Your task to perform on an android device: open a bookmark in the chrome app Image 0: 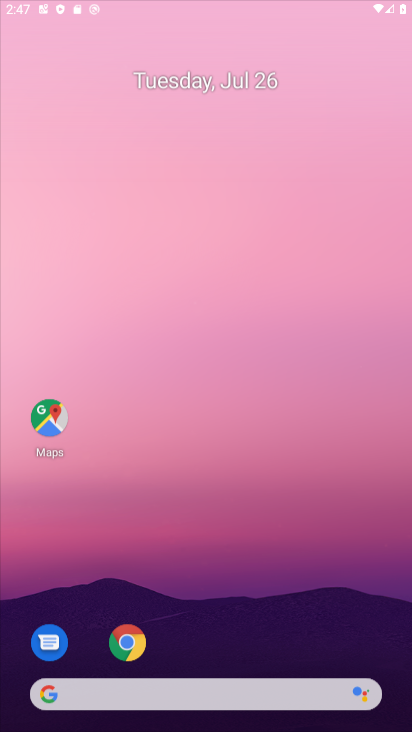
Step 0: press home button
Your task to perform on an android device: open a bookmark in the chrome app Image 1: 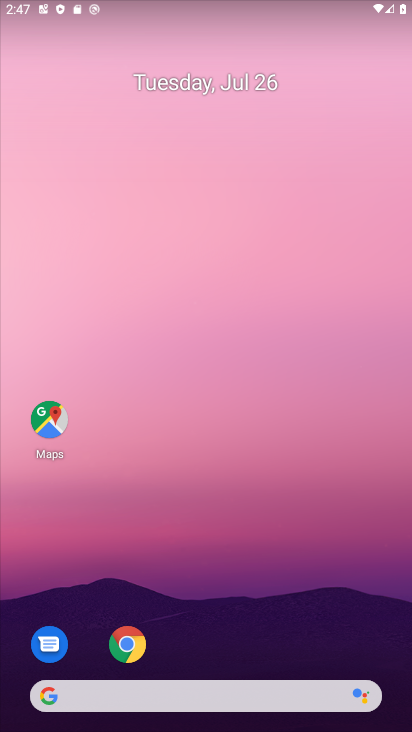
Step 1: click (126, 641)
Your task to perform on an android device: open a bookmark in the chrome app Image 2: 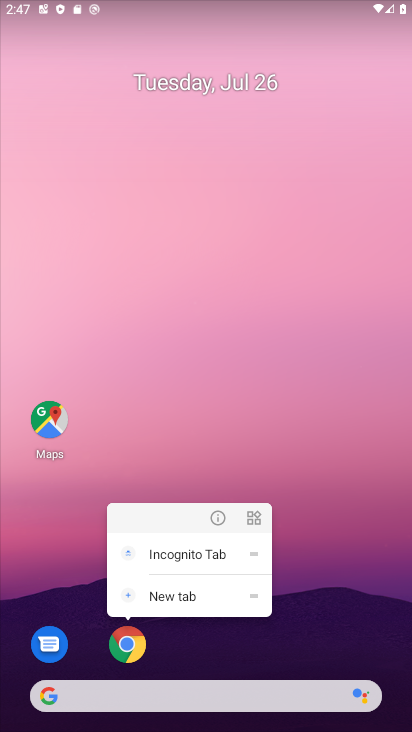
Step 2: click (116, 647)
Your task to perform on an android device: open a bookmark in the chrome app Image 3: 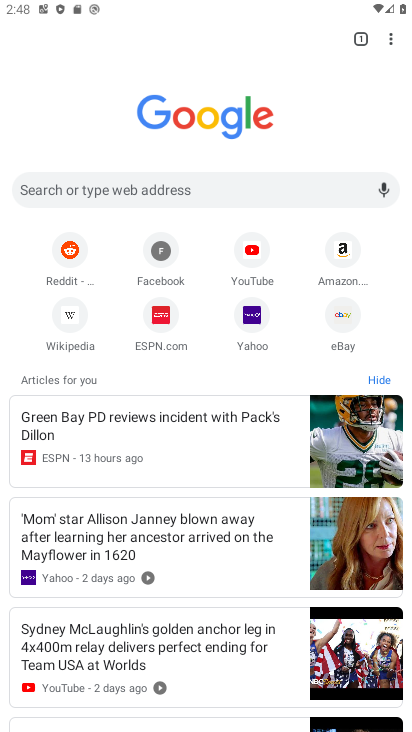
Step 3: click (397, 37)
Your task to perform on an android device: open a bookmark in the chrome app Image 4: 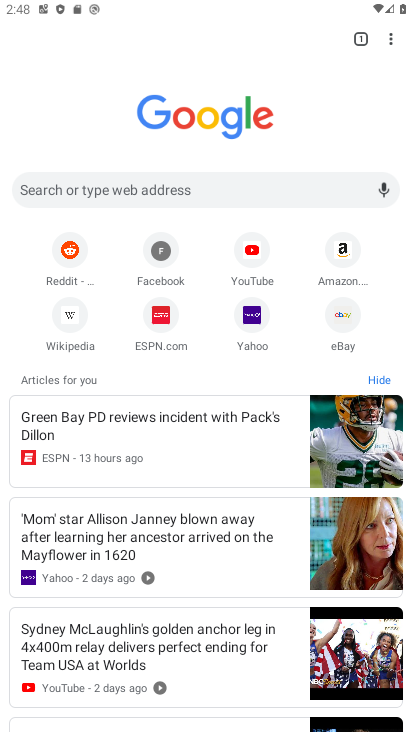
Step 4: click (397, 35)
Your task to perform on an android device: open a bookmark in the chrome app Image 5: 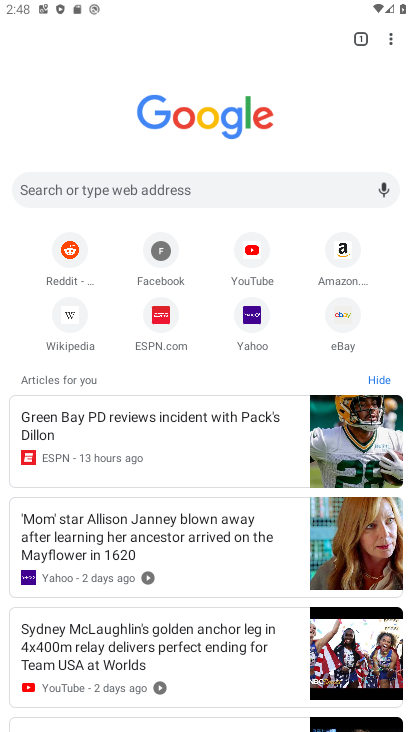
Step 5: task complete